Your task to perform on an android device: clear history in the chrome app Image 0: 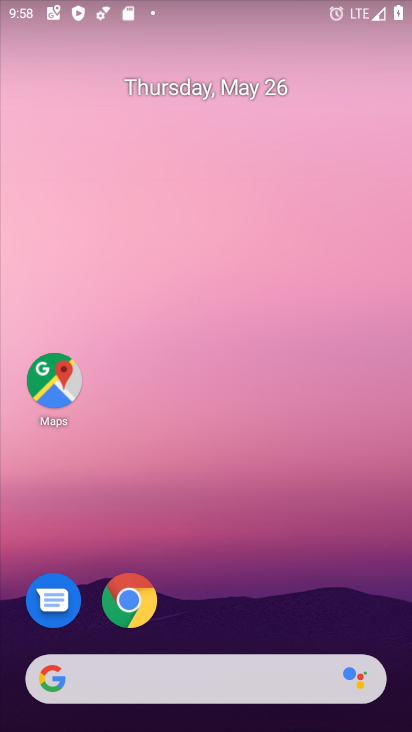
Step 0: click (135, 599)
Your task to perform on an android device: clear history in the chrome app Image 1: 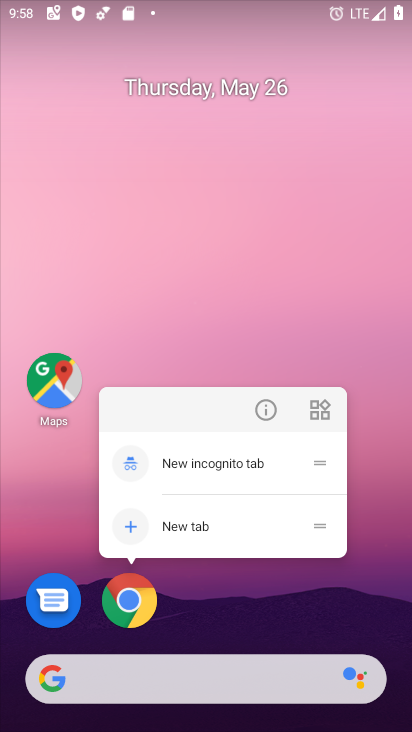
Step 1: click (133, 599)
Your task to perform on an android device: clear history in the chrome app Image 2: 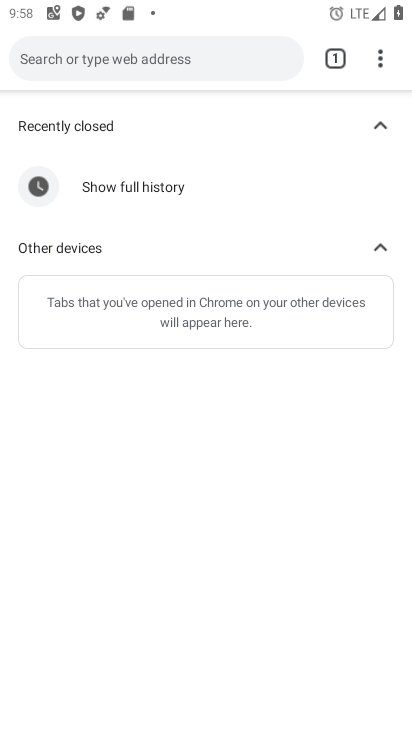
Step 2: drag from (380, 62) to (176, 334)
Your task to perform on an android device: clear history in the chrome app Image 3: 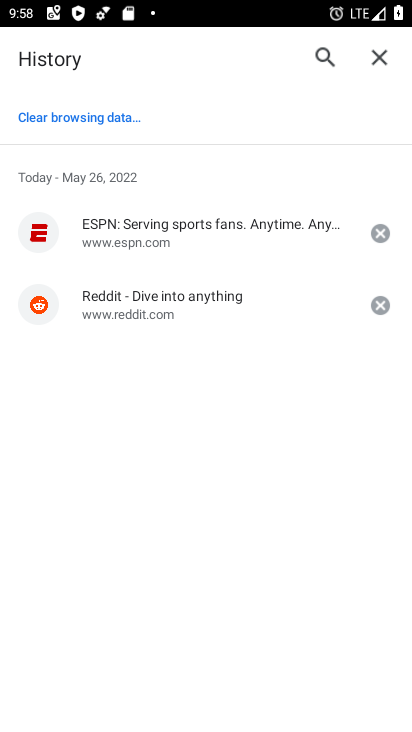
Step 3: click (106, 113)
Your task to perform on an android device: clear history in the chrome app Image 4: 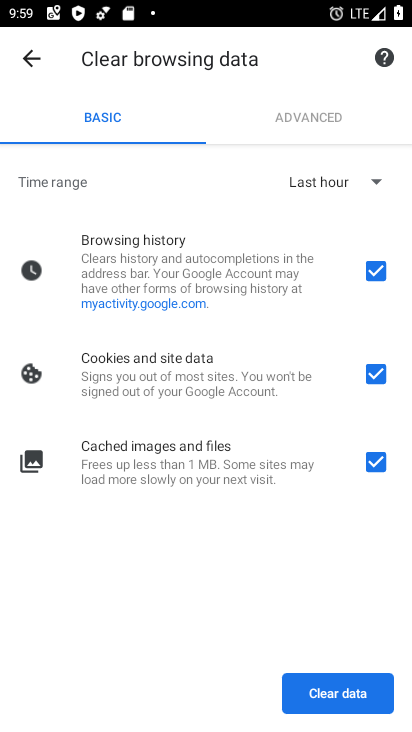
Step 4: click (356, 176)
Your task to perform on an android device: clear history in the chrome app Image 5: 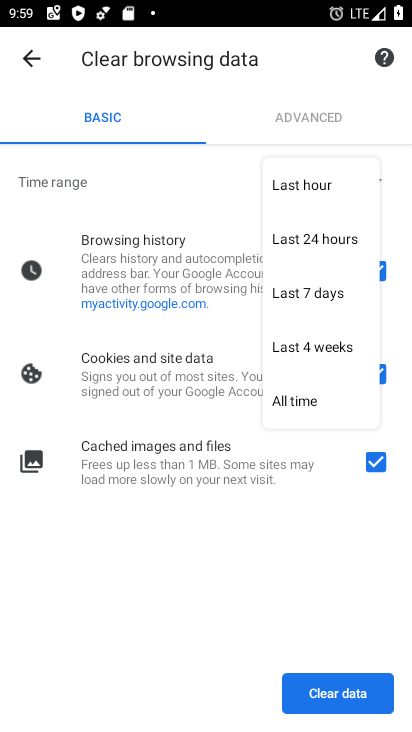
Step 5: click (310, 399)
Your task to perform on an android device: clear history in the chrome app Image 6: 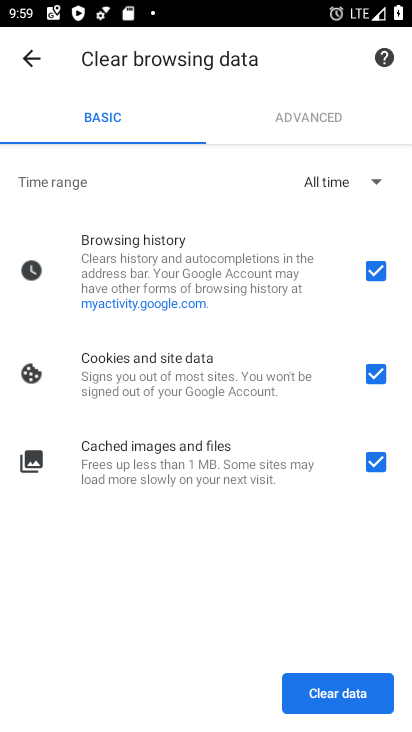
Step 6: click (347, 698)
Your task to perform on an android device: clear history in the chrome app Image 7: 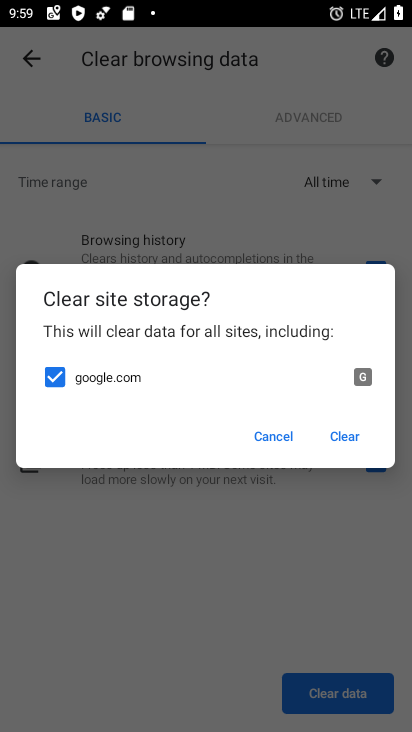
Step 7: click (345, 438)
Your task to perform on an android device: clear history in the chrome app Image 8: 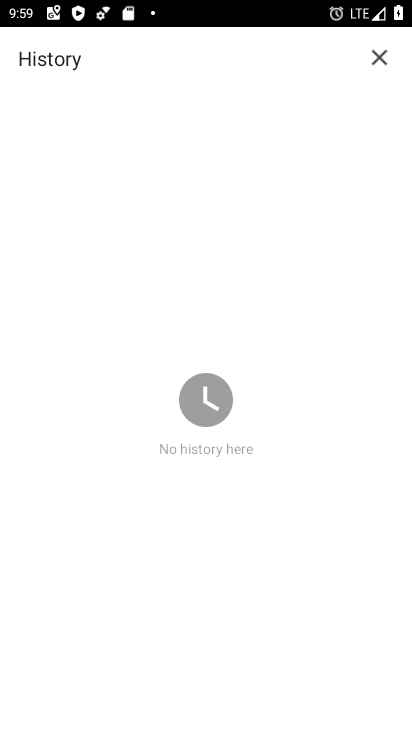
Step 8: task complete